Your task to perform on an android device: Open the calendar and show me this week's events? Image 0: 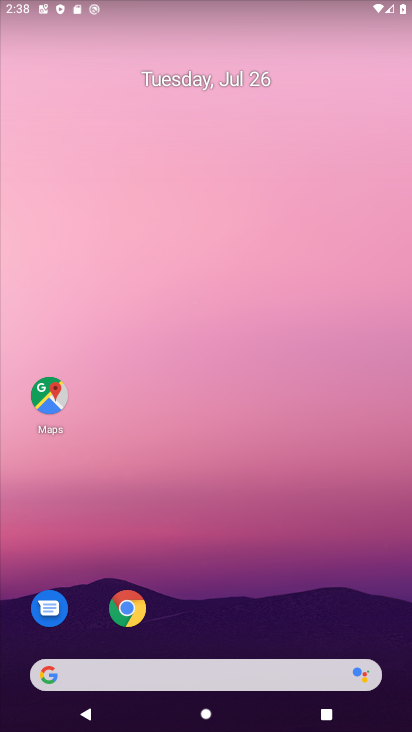
Step 0: drag from (231, 635) to (237, 185)
Your task to perform on an android device: Open the calendar and show me this week's events? Image 1: 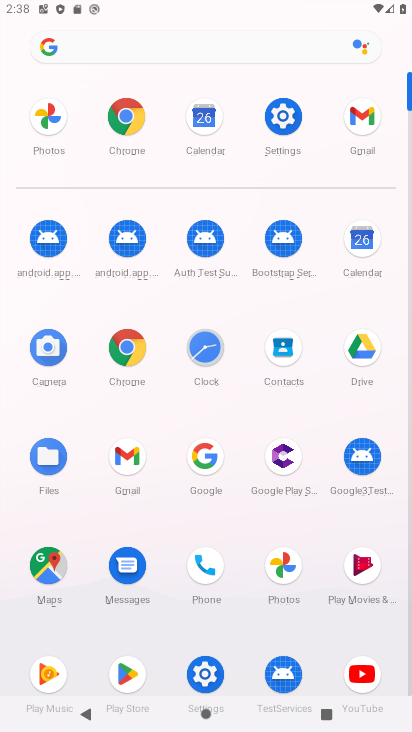
Step 1: click (208, 126)
Your task to perform on an android device: Open the calendar and show me this week's events? Image 2: 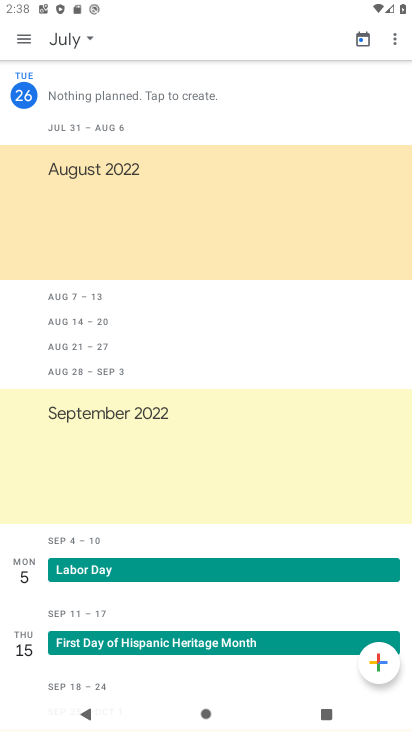
Step 2: task complete